Your task to perform on an android device: Open calendar and show me the third week of next month Image 0: 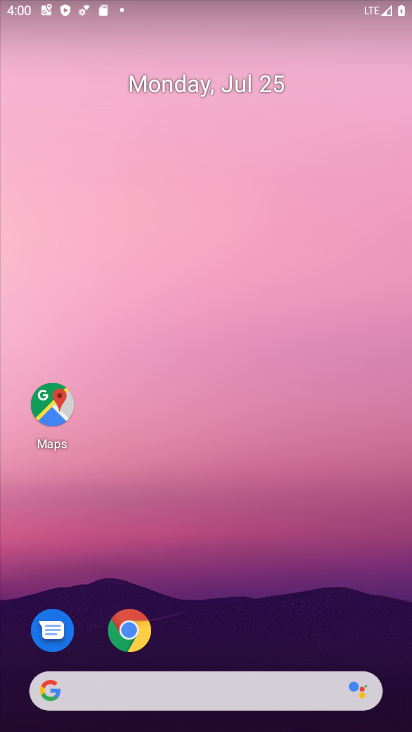
Step 0: drag from (221, 662) to (323, 7)
Your task to perform on an android device: Open calendar and show me the third week of next month Image 1: 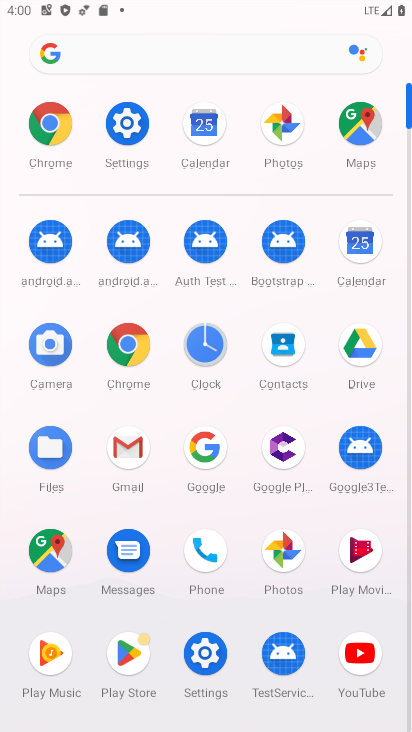
Step 1: click (370, 261)
Your task to perform on an android device: Open calendar and show me the third week of next month Image 2: 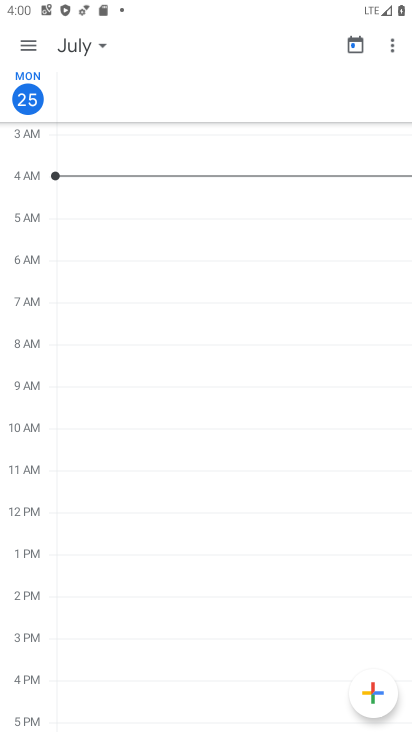
Step 2: click (35, 65)
Your task to perform on an android device: Open calendar and show me the third week of next month Image 3: 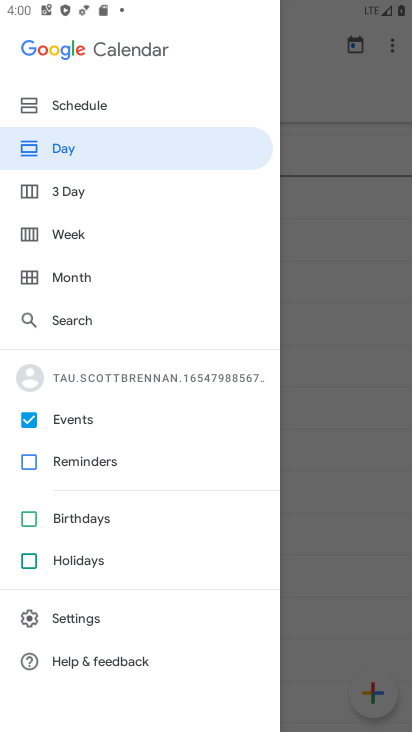
Step 3: click (63, 474)
Your task to perform on an android device: Open calendar and show me the third week of next month Image 4: 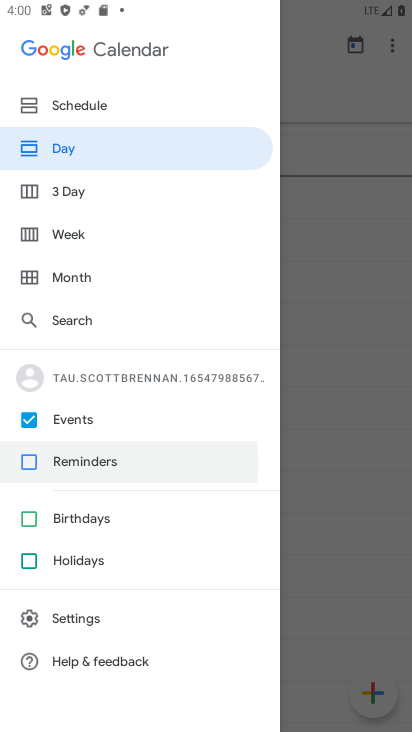
Step 4: click (67, 515)
Your task to perform on an android device: Open calendar and show me the third week of next month Image 5: 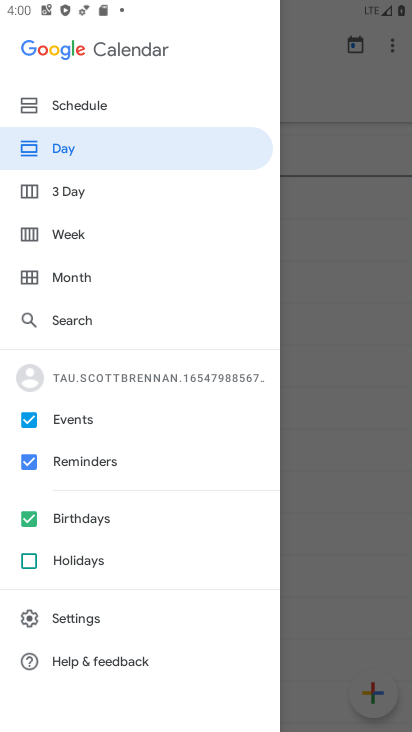
Step 5: click (62, 565)
Your task to perform on an android device: Open calendar and show me the third week of next month Image 6: 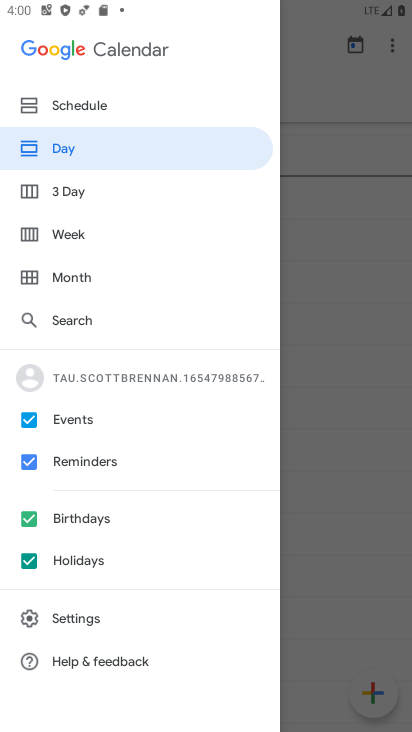
Step 6: click (86, 232)
Your task to perform on an android device: Open calendar and show me the third week of next month Image 7: 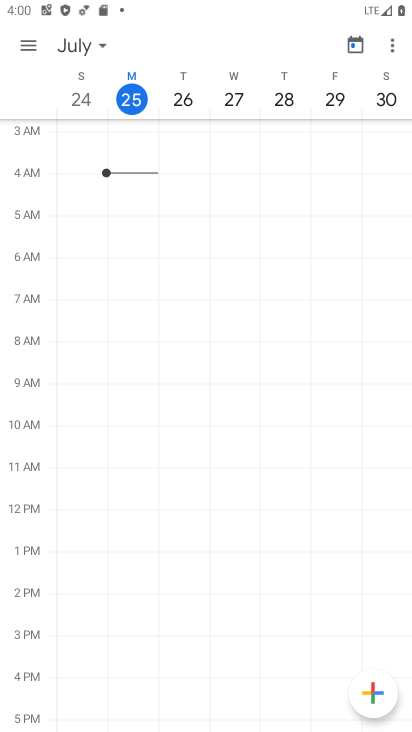
Step 7: task complete